Your task to perform on an android device: open the mobile data screen to see how much data has been used Image 0: 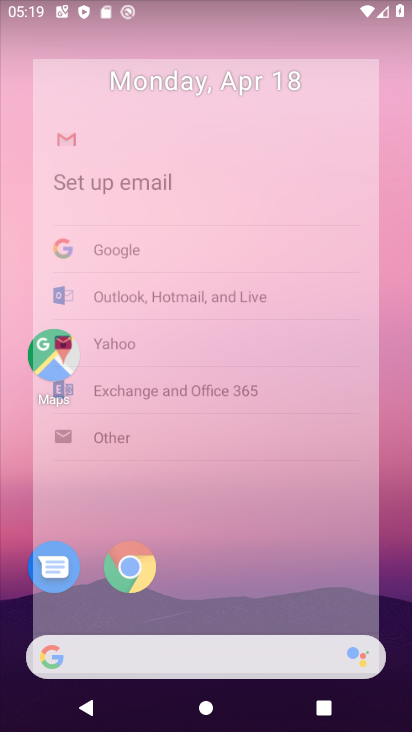
Step 0: drag from (394, 644) to (281, 49)
Your task to perform on an android device: open the mobile data screen to see how much data has been used Image 1: 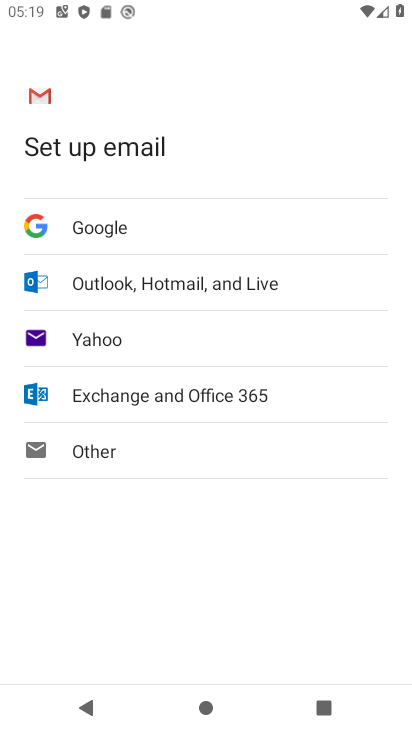
Step 1: press back button
Your task to perform on an android device: open the mobile data screen to see how much data has been used Image 2: 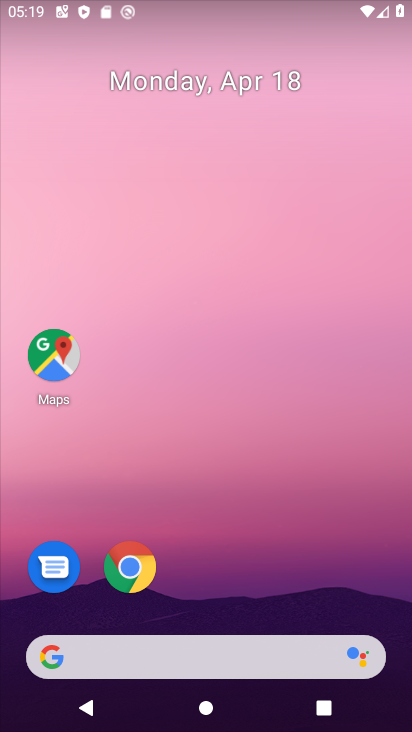
Step 2: drag from (385, 597) to (343, 78)
Your task to perform on an android device: open the mobile data screen to see how much data has been used Image 3: 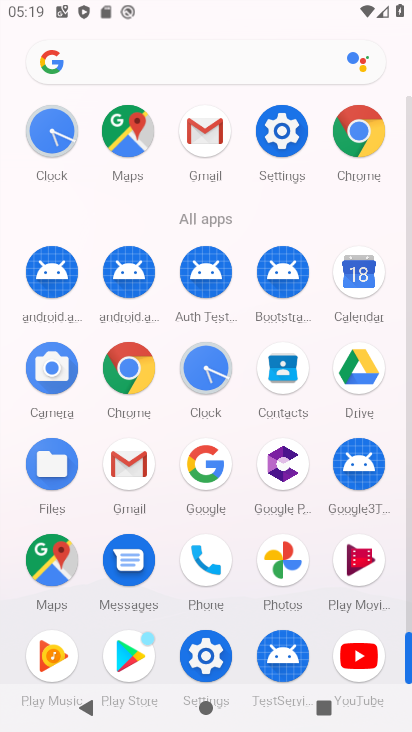
Step 3: drag from (10, 496) to (8, 228)
Your task to perform on an android device: open the mobile data screen to see how much data has been used Image 4: 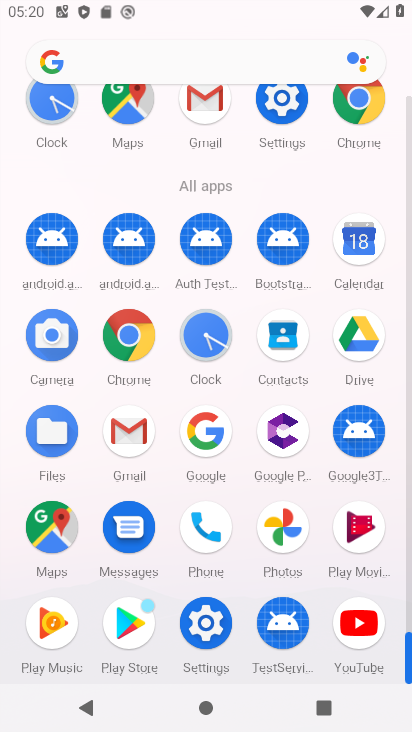
Step 4: drag from (16, 470) to (9, 236)
Your task to perform on an android device: open the mobile data screen to see how much data has been used Image 5: 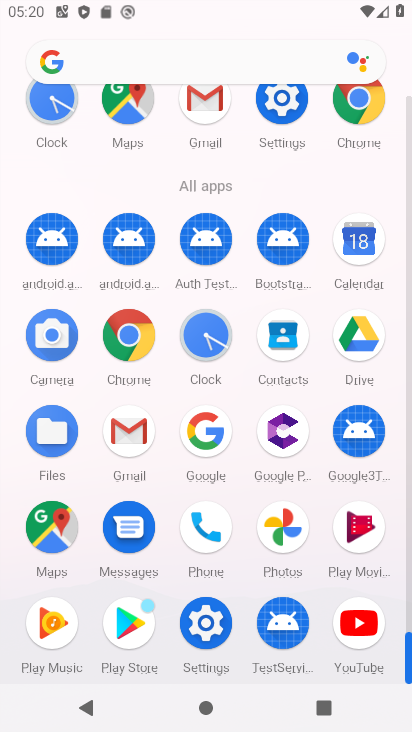
Step 5: click (207, 620)
Your task to perform on an android device: open the mobile data screen to see how much data has been used Image 6: 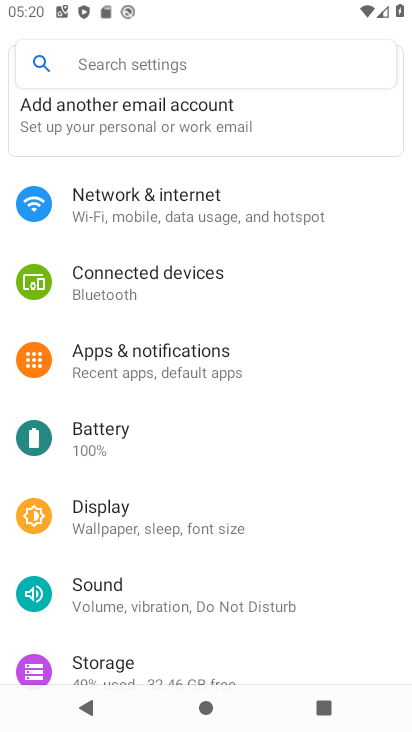
Step 6: click (197, 213)
Your task to perform on an android device: open the mobile data screen to see how much data has been used Image 7: 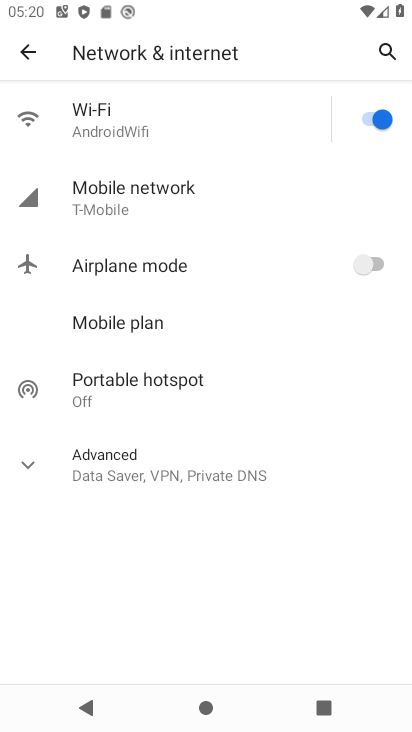
Step 7: click (164, 193)
Your task to perform on an android device: open the mobile data screen to see how much data has been used Image 8: 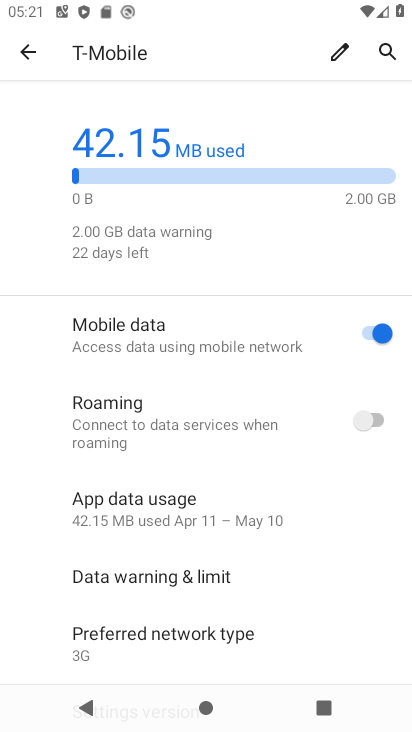
Step 8: task complete